Your task to perform on an android device: check the backup settings in the google photos Image 0: 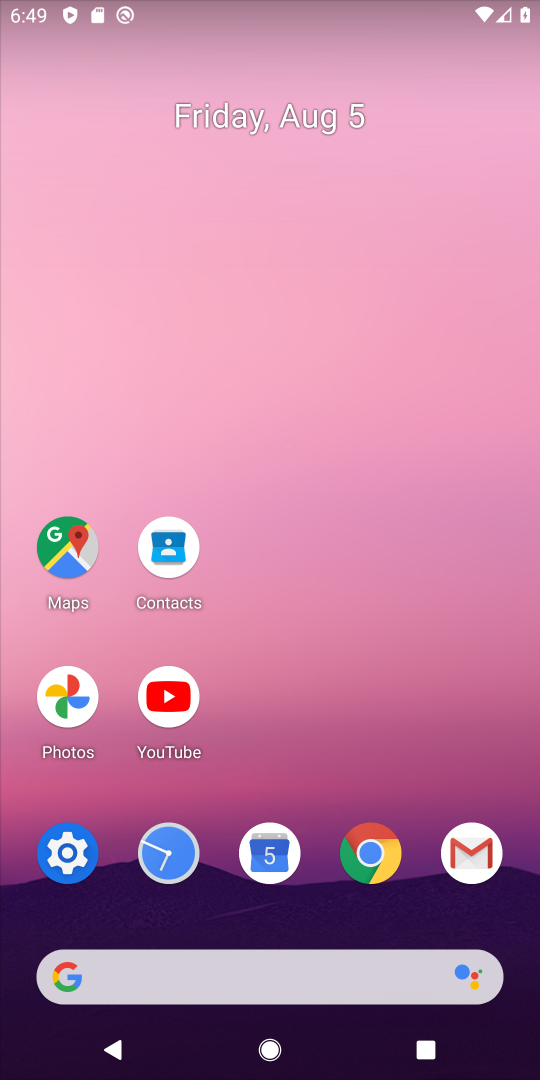
Step 0: click (65, 686)
Your task to perform on an android device: check the backup settings in the google photos Image 1: 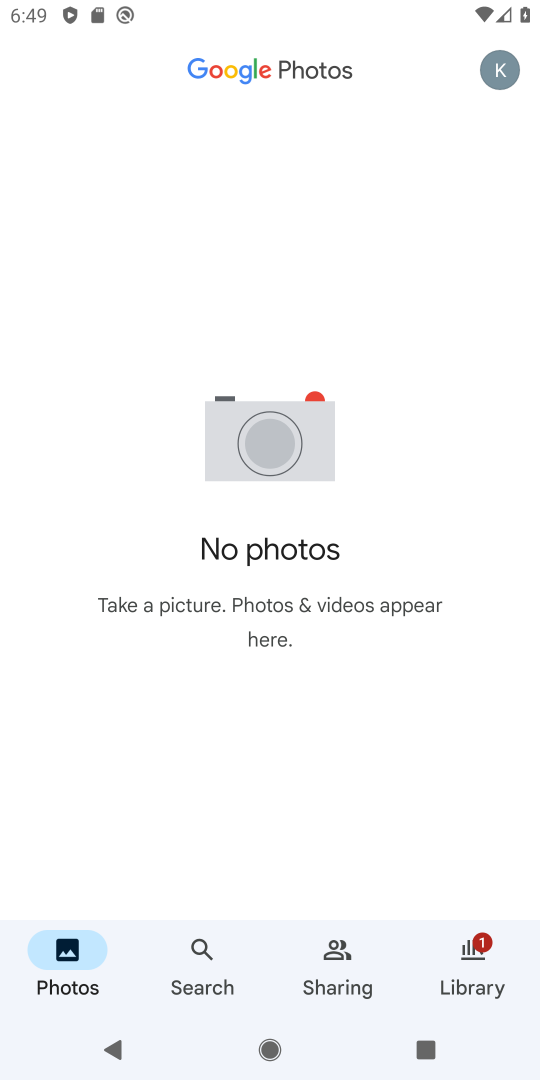
Step 1: click (481, 958)
Your task to perform on an android device: check the backup settings in the google photos Image 2: 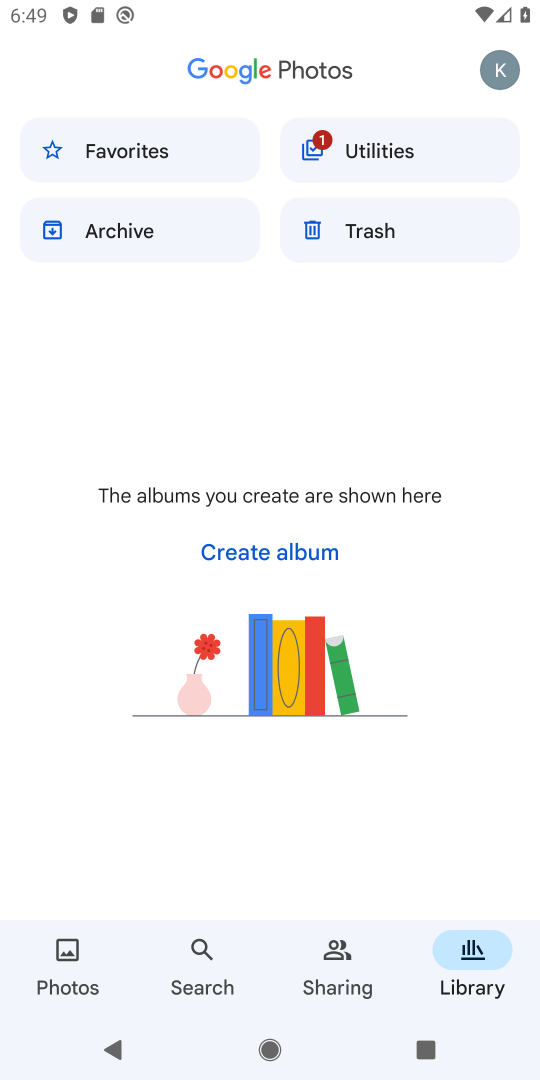
Step 2: click (504, 69)
Your task to perform on an android device: check the backup settings in the google photos Image 3: 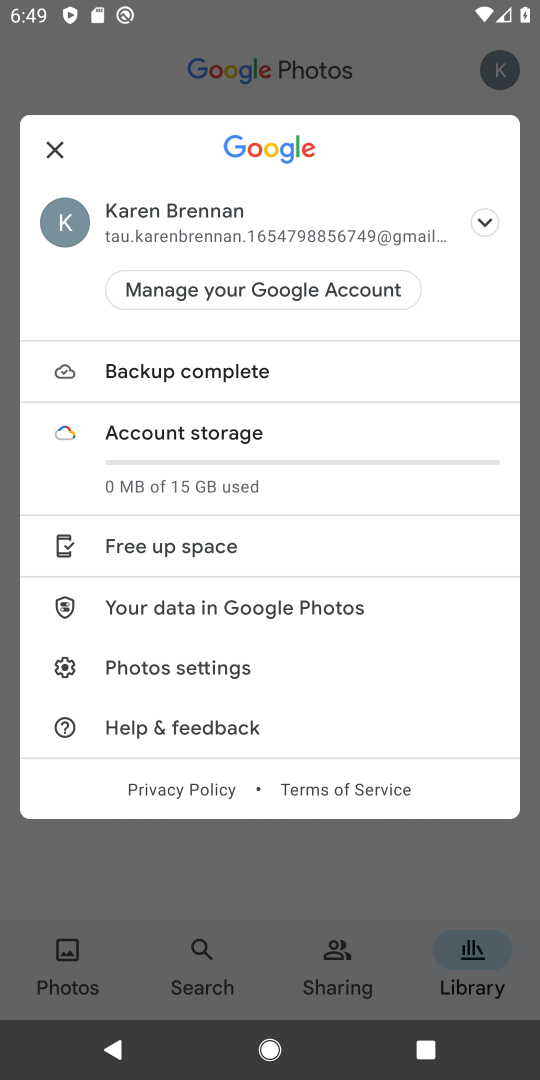
Step 3: click (178, 659)
Your task to perform on an android device: check the backup settings in the google photos Image 4: 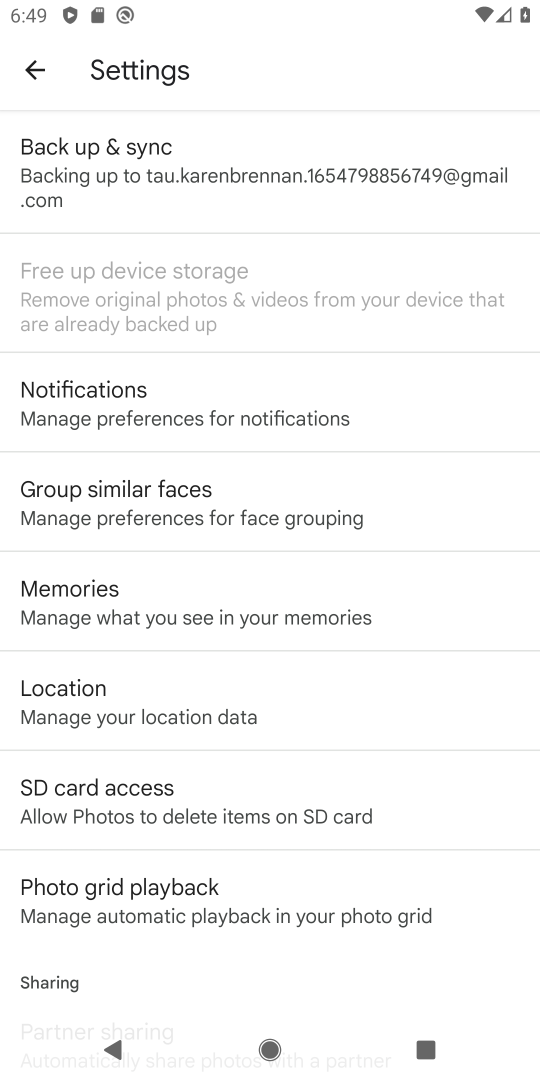
Step 4: click (105, 150)
Your task to perform on an android device: check the backup settings in the google photos Image 5: 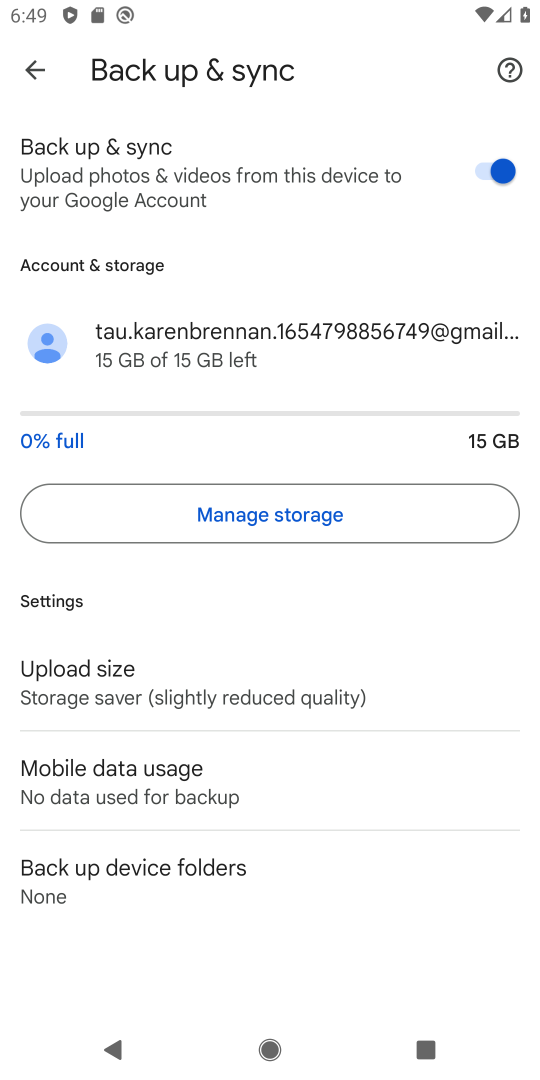
Step 5: task complete